Your task to perform on an android device: install app "Paramount+ | Peak Streaming" Image 0: 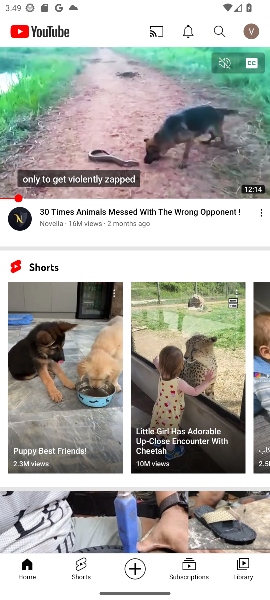
Step 0: press home button
Your task to perform on an android device: install app "Paramount+ | Peak Streaming" Image 1: 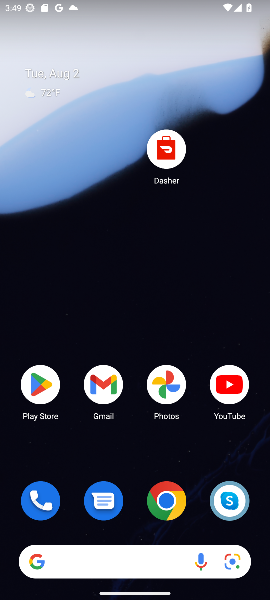
Step 1: click (44, 392)
Your task to perform on an android device: install app "Paramount+ | Peak Streaming" Image 2: 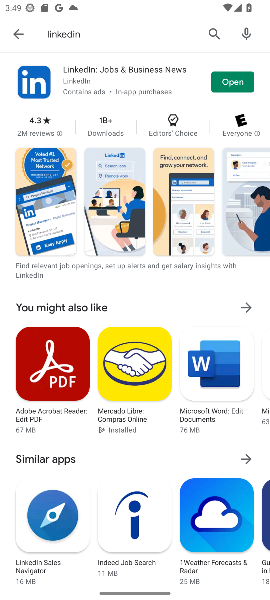
Step 2: click (209, 33)
Your task to perform on an android device: install app "Paramount+ | Peak Streaming" Image 3: 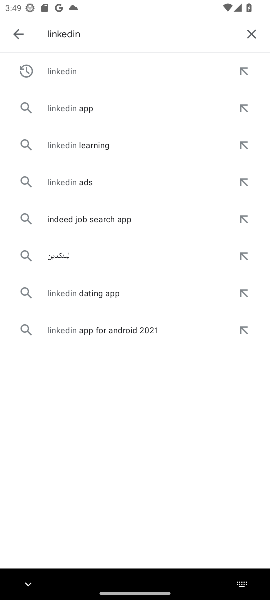
Step 3: click (252, 33)
Your task to perform on an android device: install app "Paramount+ | Peak Streaming" Image 4: 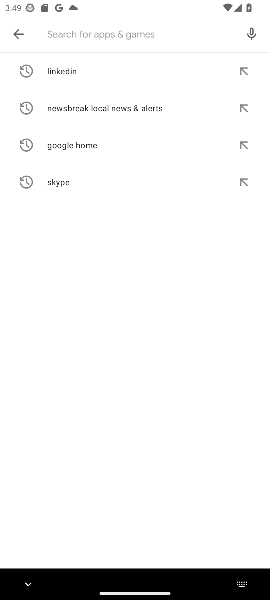
Step 4: type "Paramount+ | Peak Streaming"
Your task to perform on an android device: install app "Paramount+ | Peak Streaming" Image 5: 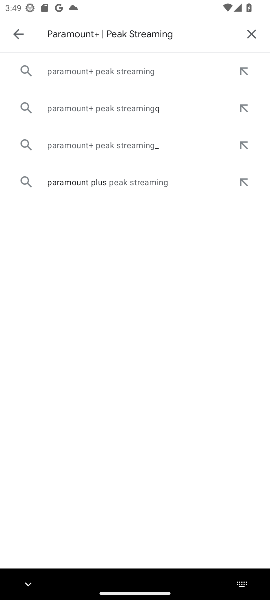
Step 5: click (103, 76)
Your task to perform on an android device: install app "Paramount+ | Peak Streaming" Image 6: 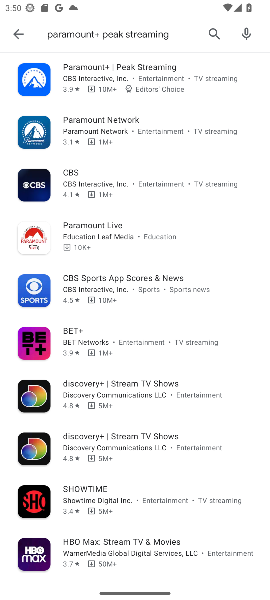
Step 6: click (77, 71)
Your task to perform on an android device: install app "Paramount+ | Peak Streaming" Image 7: 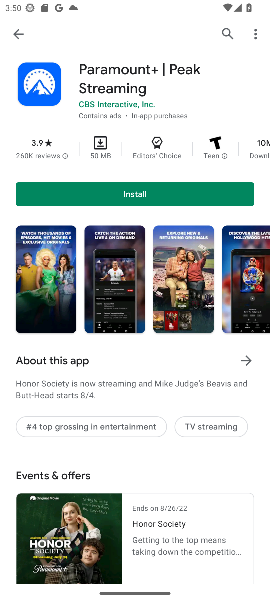
Step 7: click (134, 192)
Your task to perform on an android device: install app "Paramount+ | Peak Streaming" Image 8: 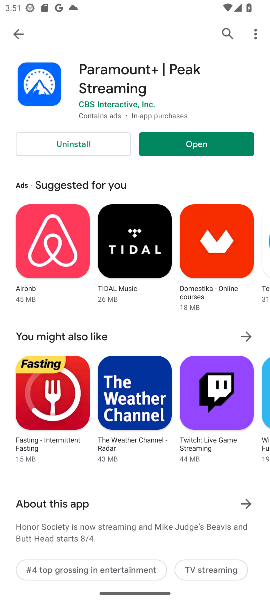
Step 8: task complete